Your task to perform on an android device: clear all cookies in the chrome app Image 0: 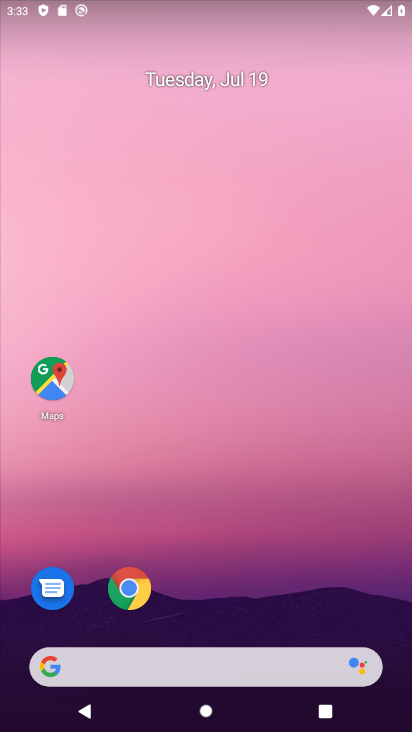
Step 0: click (137, 589)
Your task to perform on an android device: clear all cookies in the chrome app Image 1: 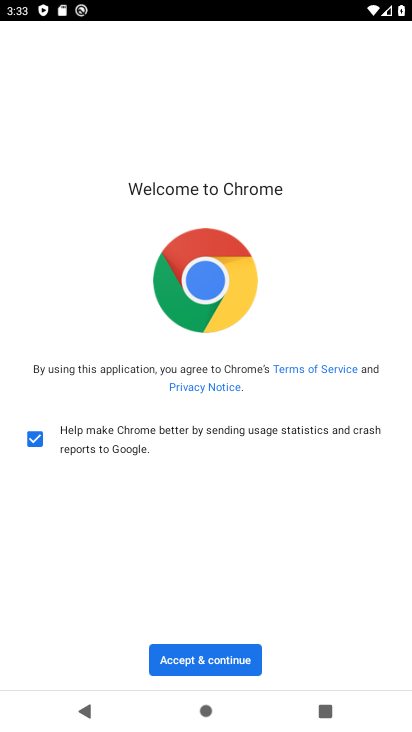
Step 1: click (208, 667)
Your task to perform on an android device: clear all cookies in the chrome app Image 2: 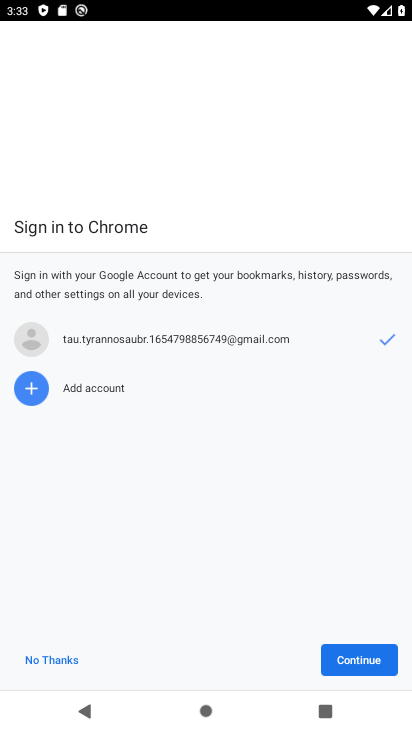
Step 2: click (364, 660)
Your task to perform on an android device: clear all cookies in the chrome app Image 3: 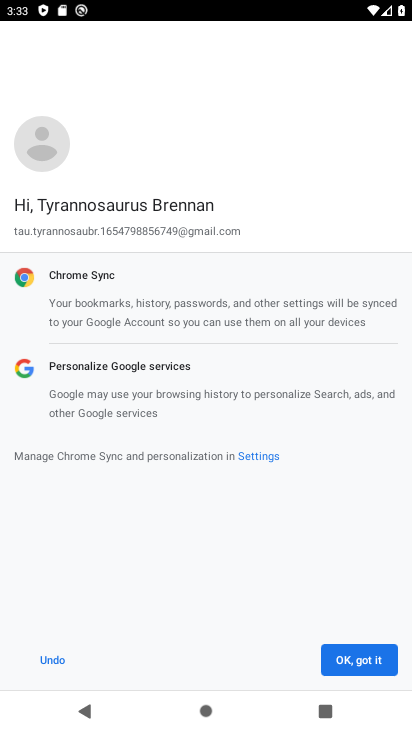
Step 3: click (366, 660)
Your task to perform on an android device: clear all cookies in the chrome app Image 4: 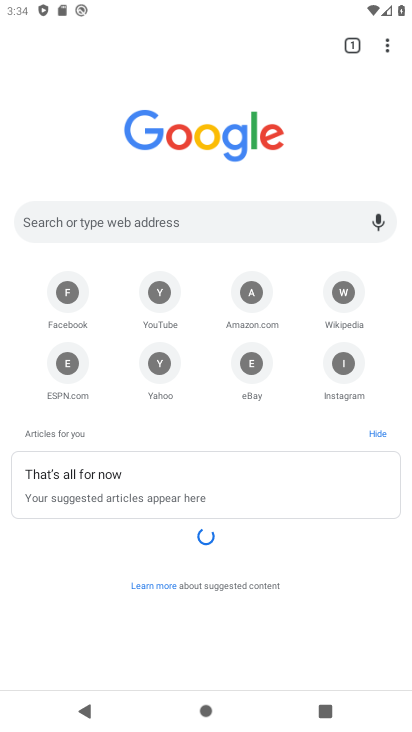
Step 4: click (389, 37)
Your task to perform on an android device: clear all cookies in the chrome app Image 5: 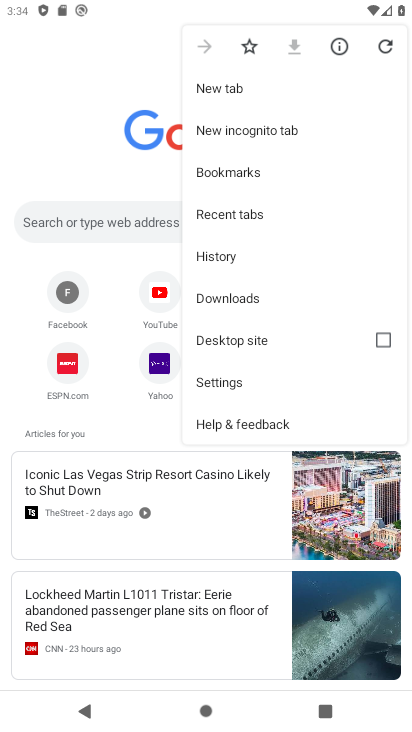
Step 5: click (231, 249)
Your task to perform on an android device: clear all cookies in the chrome app Image 6: 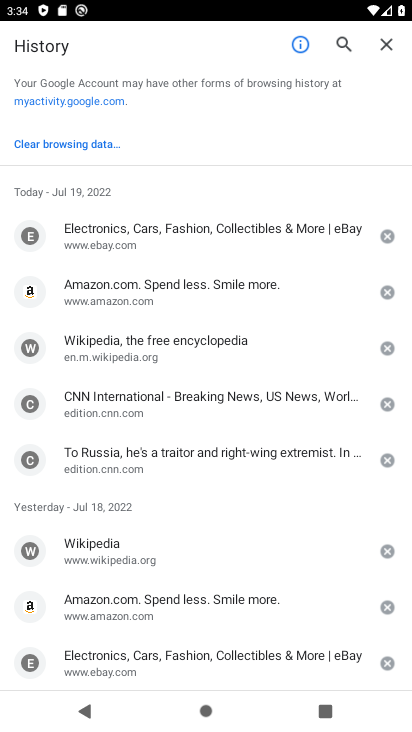
Step 6: click (81, 144)
Your task to perform on an android device: clear all cookies in the chrome app Image 7: 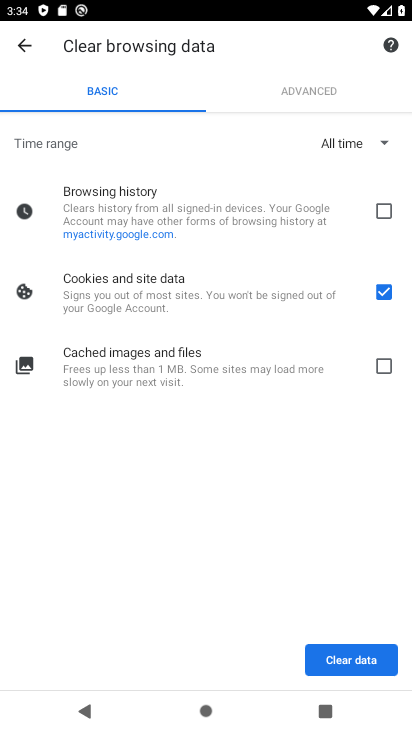
Step 7: click (359, 657)
Your task to perform on an android device: clear all cookies in the chrome app Image 8: 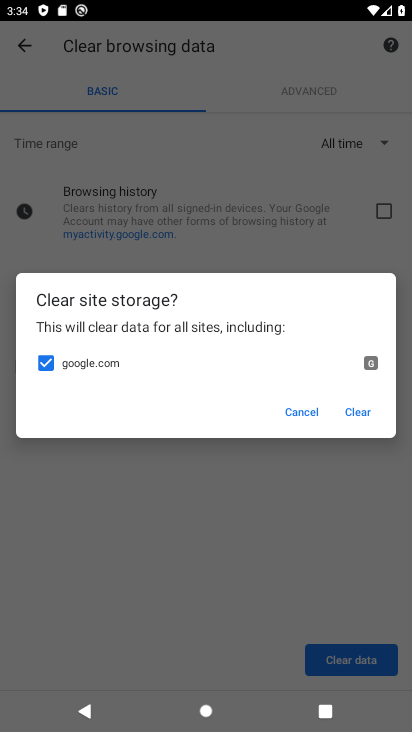
Step 8: click (361, 414)
Your task to perform on an android device: clear all cookies in the chrome app Image 9: 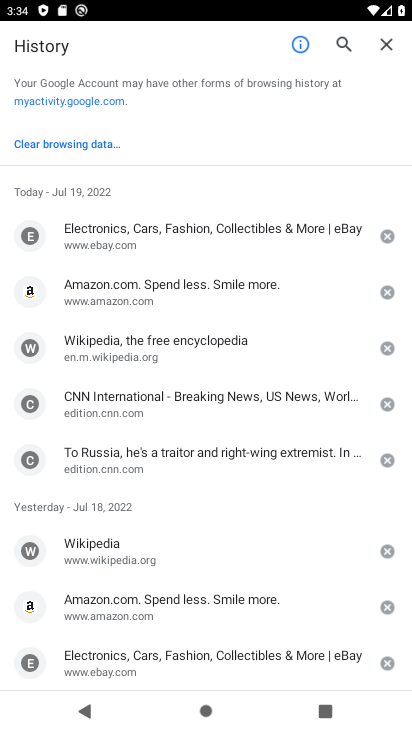
Step 9: task complete